Your task to perform on an android device: Go to settings Image 0: 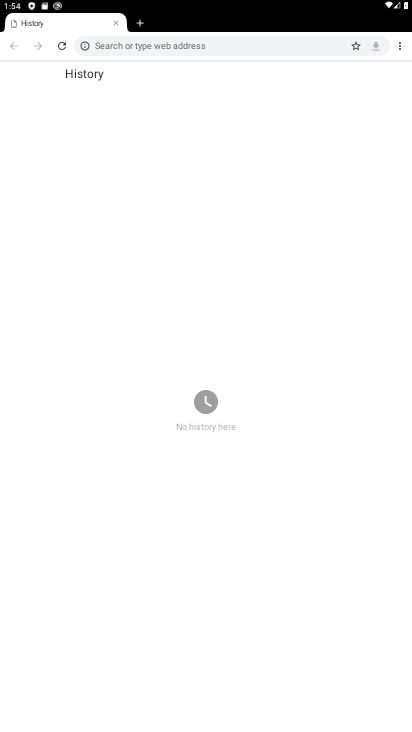
Step 0: press home button
Your task to perform on an android device: Go to settings Image 1: 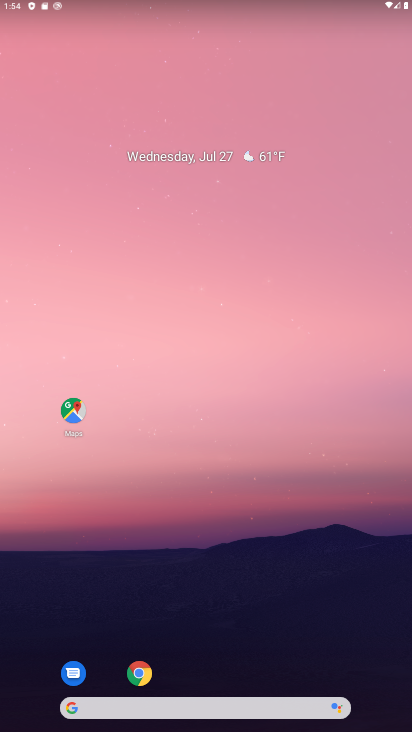
Step 1: drag from (197, 644) to (173, 122)
Your task to perform on an android device: Go to settings Image 2: 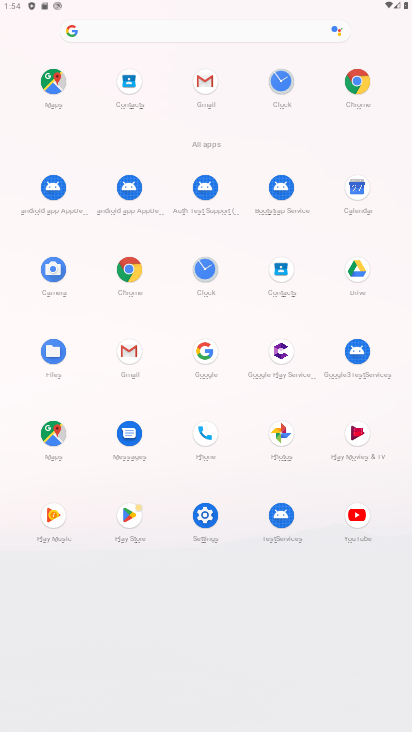
Step 2: click (213, 536)
Your task to perform on an android device: Go to settings Image 3: 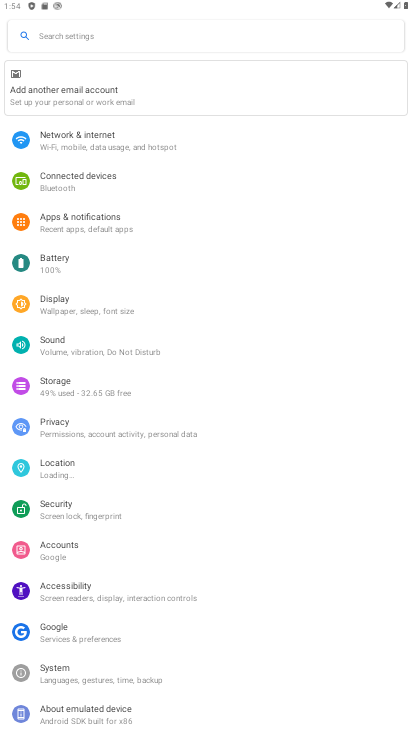
Step 3: task complete